Your task to perform on an android device: see sites visited before in the chrome app Image 0: 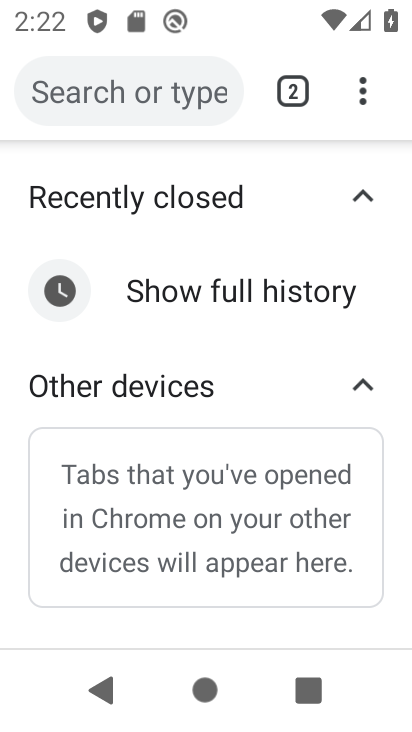
Step 0: click (376, 92)
Your task to perform on an android device: see sites visited before in the chrome app Image 1: 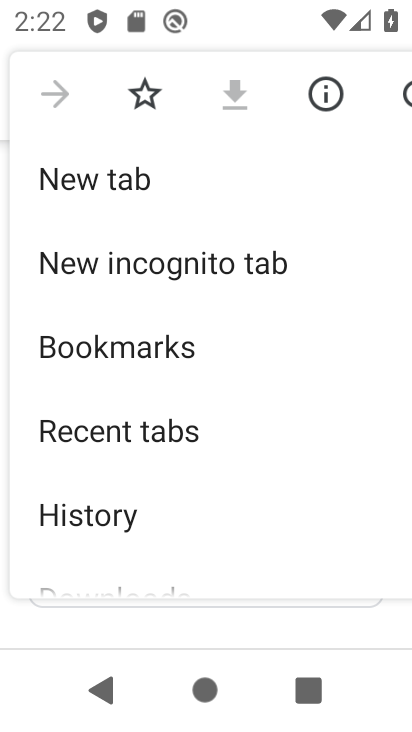
Step 1: click (101, 511)
Your task to perform on an android device: see sites visited before in the chrome app Image 2: 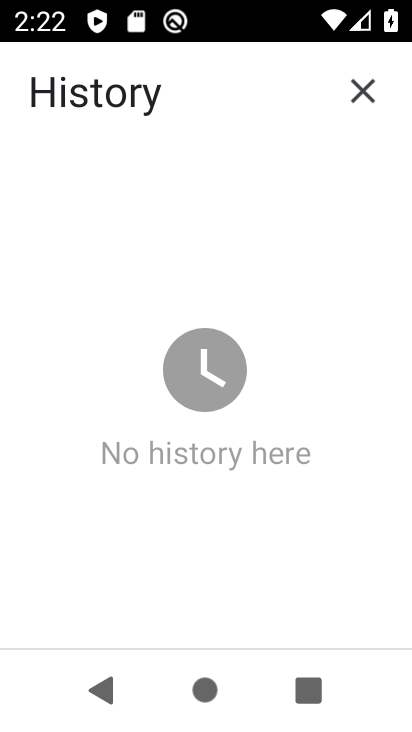
Step 2: task complete